Your task to perform on an android device: change text size in settings app Image 0: 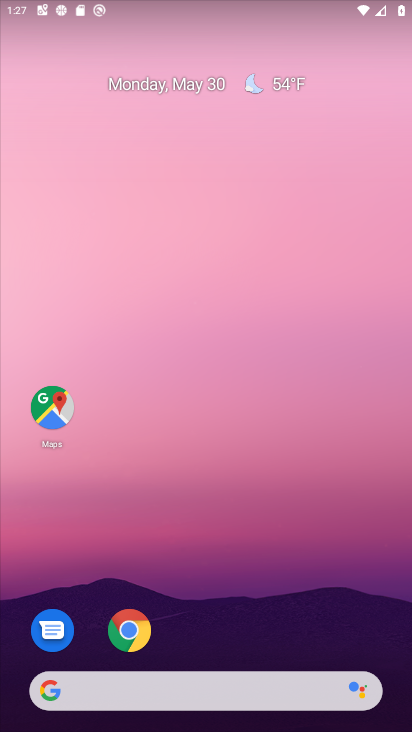
Step 0: press home button
Your task to perform on an android device: change text size in settings app Image 1: 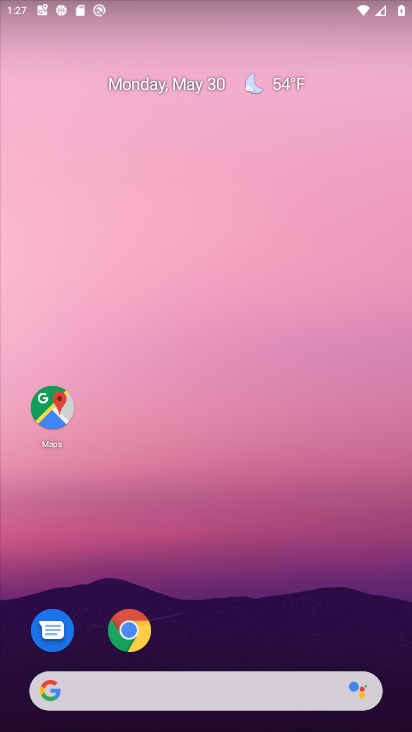
Step 1: drag from (114, 684) to (328, 113)
Your task to perform on an android device: change text size in settings app Image 2: 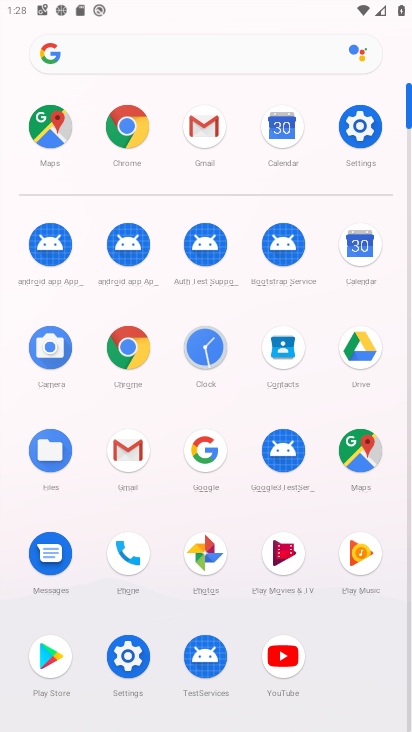
Step 2: click (354, 132)
Your task to perform on an android device: change text size in settings app Image 3: 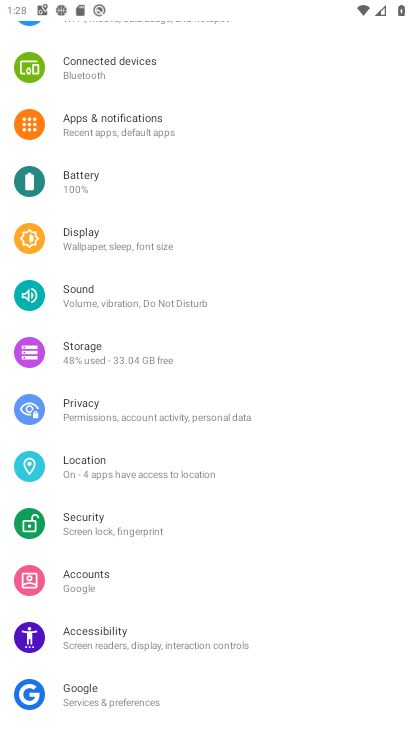
Step 3: click (79, 238)
Your task to perform on an android device: change text size in settings app Image 4: 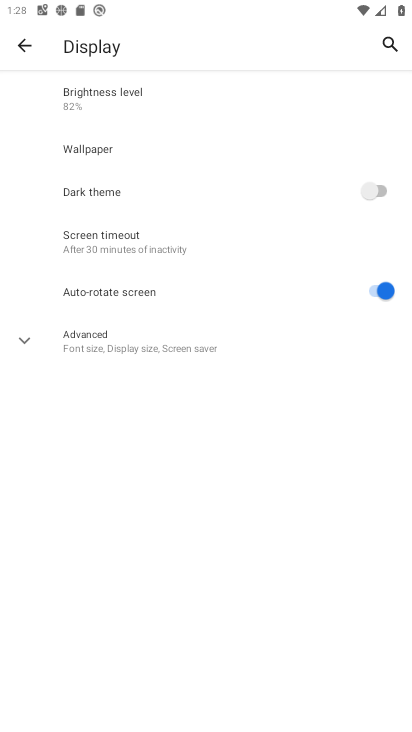
Step 4: click (127, 344)
Your task to perform on an android device: change text size in settings app Image 5: 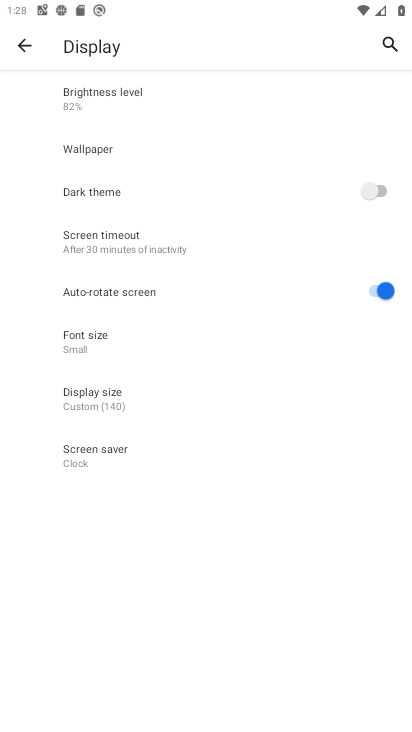
Step 5: click (76, 339)
Your task to perform on an android device: change text size in settings app Image 6: 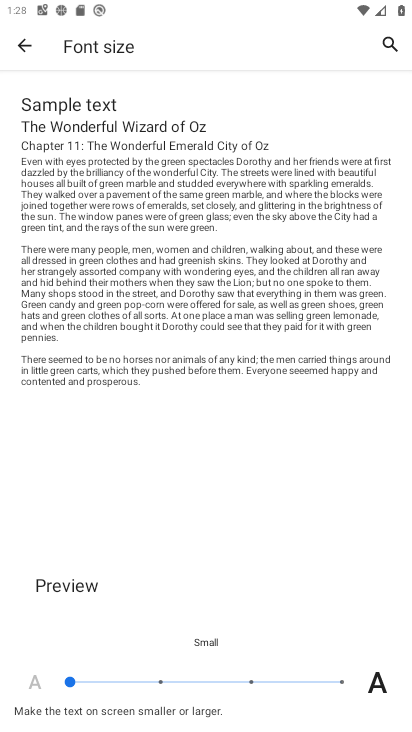
Step 6: click (162, 679)
Your task to perform on an android device: change text size in settings app Image 7: 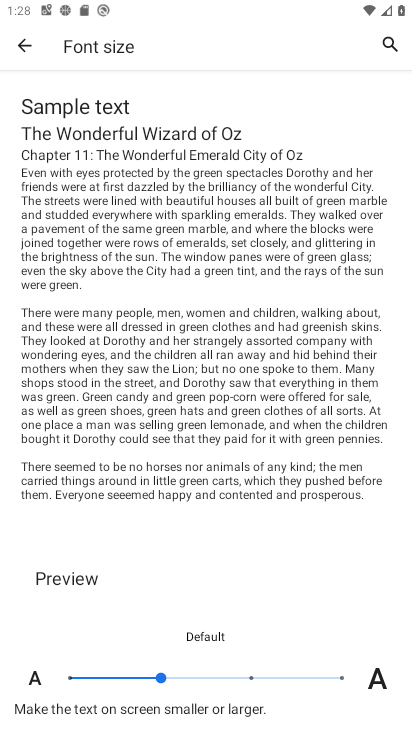
Step 7: task complete